Your task to perform on an android device: open a new tab in the chrome app Image 0: 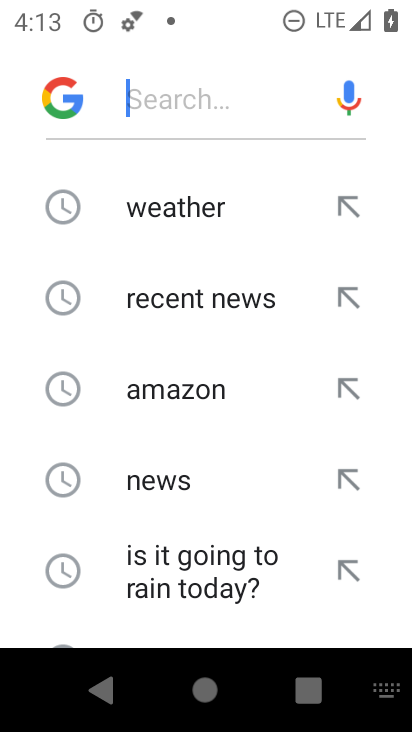
Step 0: press back button
Your task to perform on an android device: open a new tab in the chrome app Image 1: 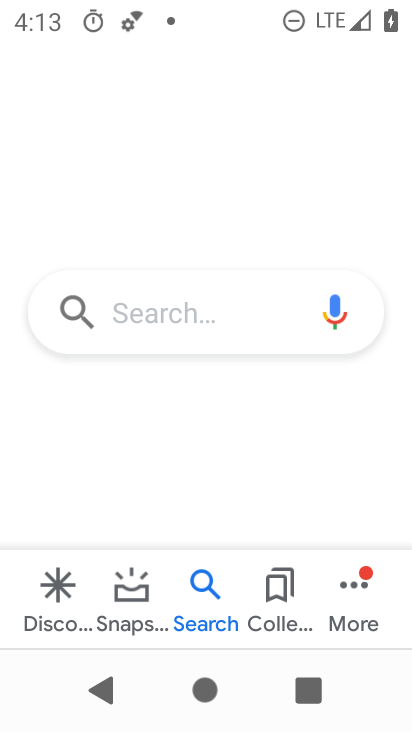
Step 1: press back button
Your task to perform on an android device: open a new tab in the chrome app Image 2: 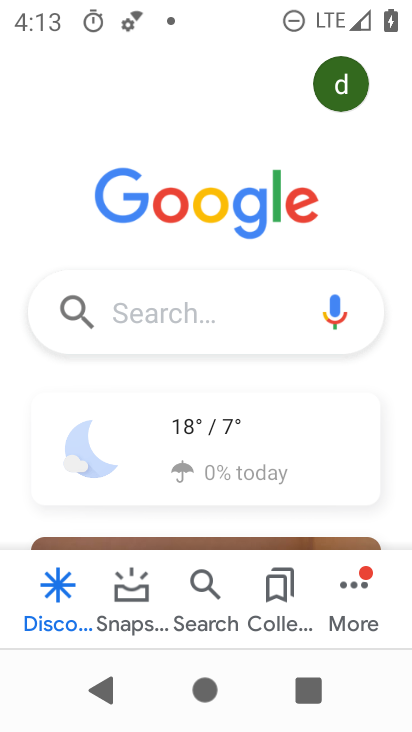
Step 2: press back button
Your task to perform on an android device: open a new tab in the chrome app Image 3: 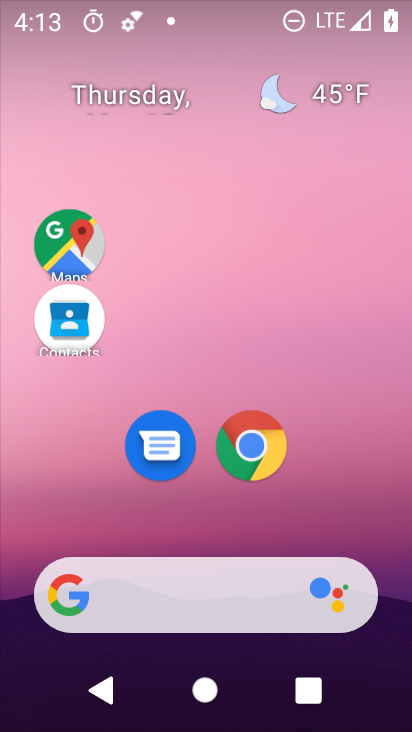
Step 3: click (251, 445)
Your task to perform on an android device: open a new tab in the chrome app Image 4: 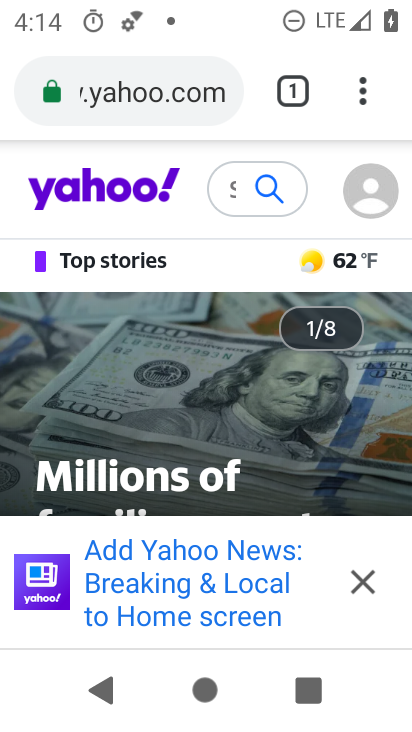
Step 4: click (365, 93)
Your task to perform on an android device: open a new tab in the chrome app Image 5: 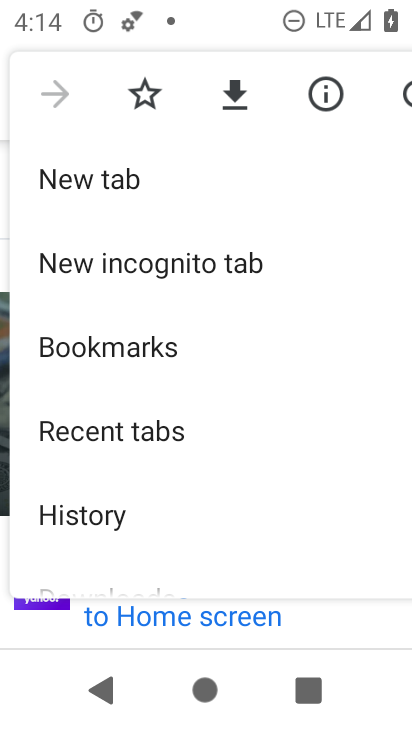
Step 5: click (90, 181)
Your task to perform on an android device: open a new tab in the chrome app Image 6: 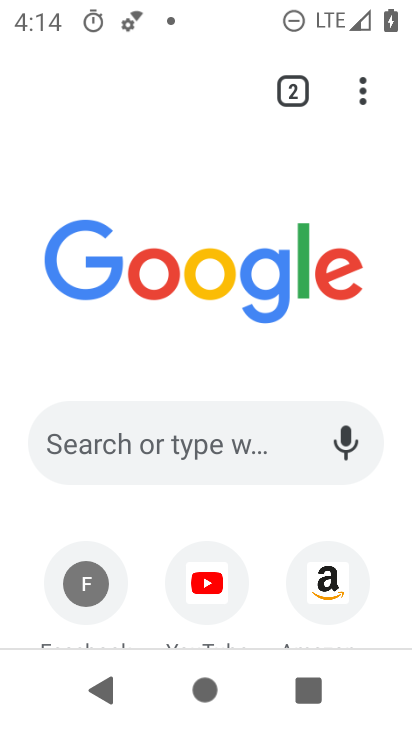
Step 6: task complete